Your task to perform on an android device: stop showing notifications on the lock screen Image 0: 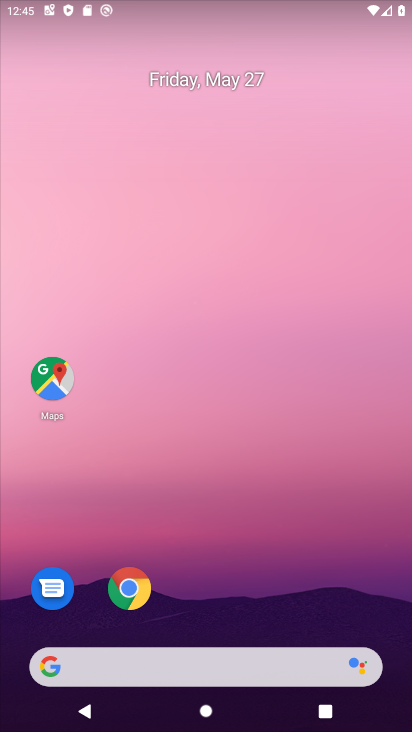
Step 0: drag from (218, 607) to (234, 5)
Your task to perform on an android device: stop showing notifications on the lock screen Image 1: 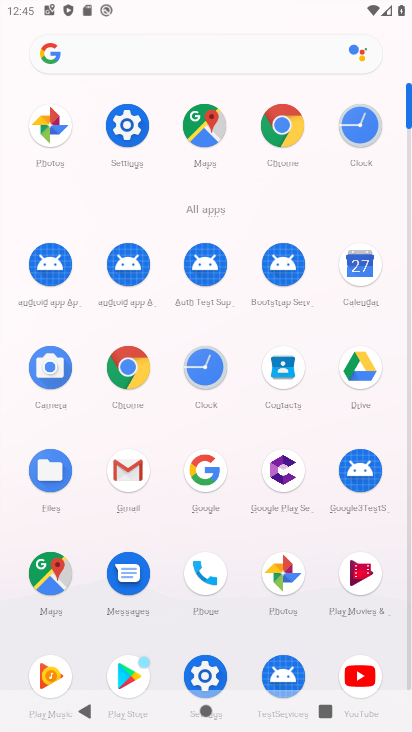
Step 1: click (130, 129)
Your task to perform on an android device: stop showing notifications on the lock screen Image 2: 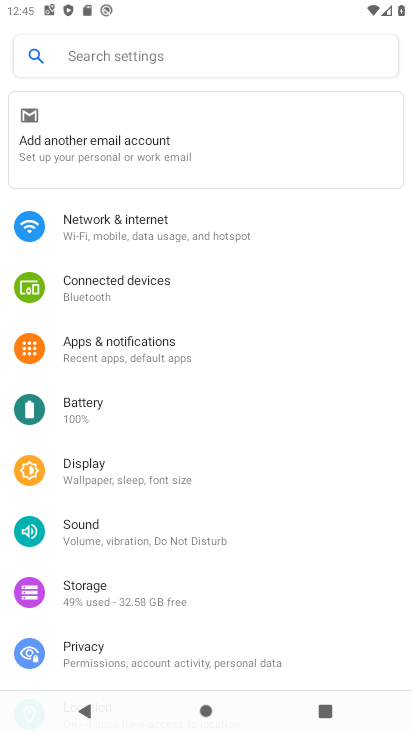
Step 2: click (120, 344)
Your task to perform on an android device: stop showing notifications on the lock screen Image 3: 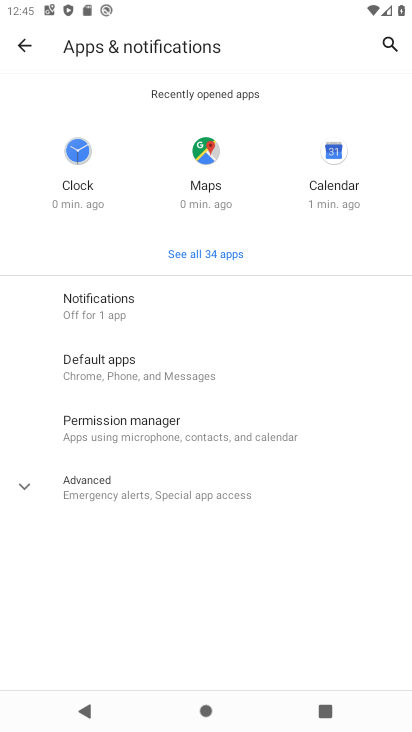
Step 3: click (90, 307)
Your task to perform on an android device: stop showing notifications on the lock screen Image 4: 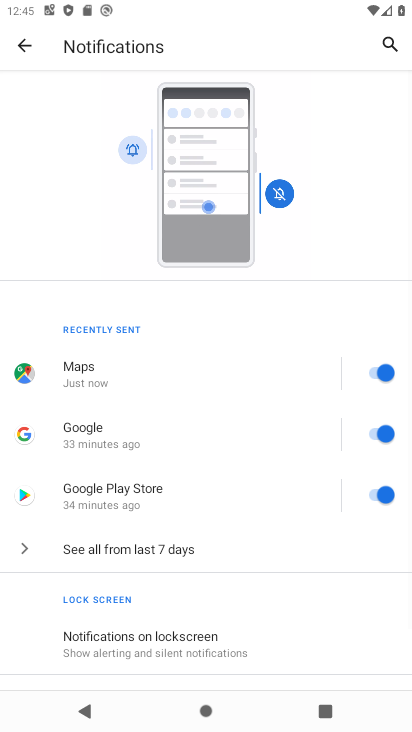
Step 4: click (155, 636)
Your task to perform on an android device: stop showing notifications on the lock screen Image 5: 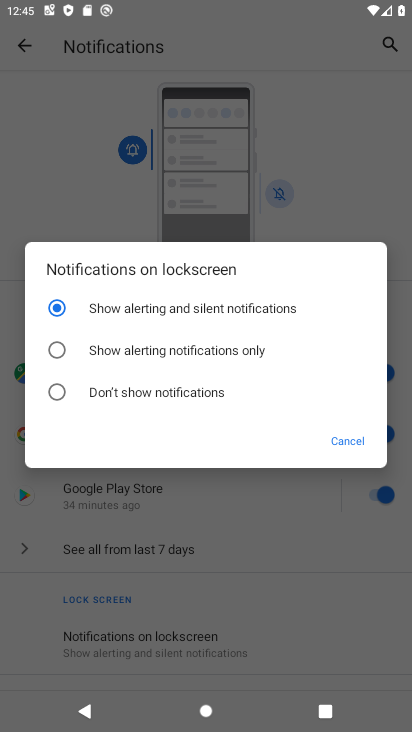
Step 5: click (144, 407)
Your task to perform on an android device: stop showing notifications on the lock screen Image 6: 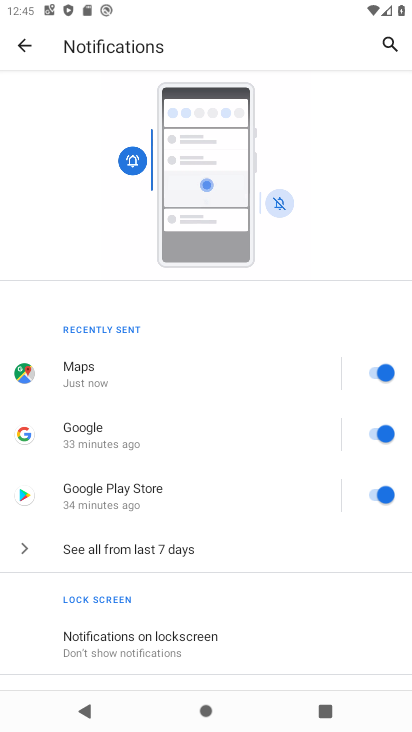
Step 6: task complete